Your task to perform on an android device: Open network settings Image 0: 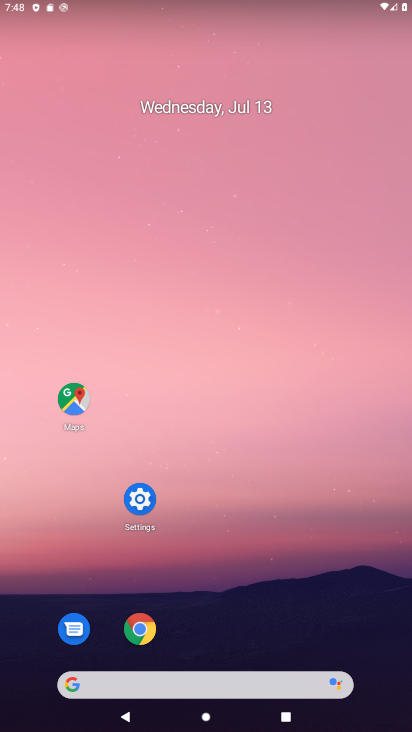
Step 0: drag from (395, 717) to (333, 101)
Your task to perform on an android device: Open network settings Image 1: 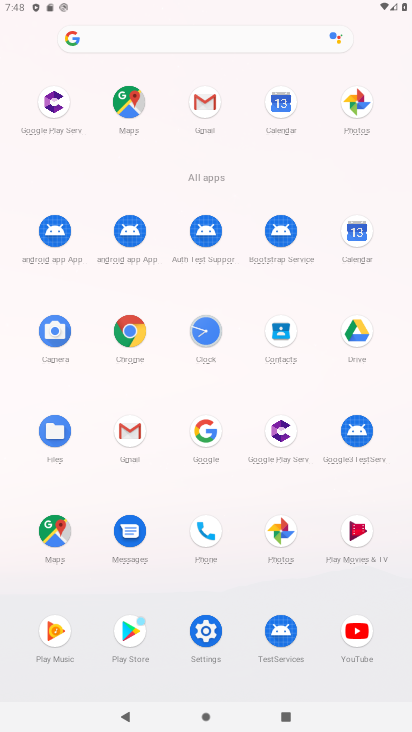
Step 1: click (211, 637)
Your task to perform on an android device: Open network settings Image 2: 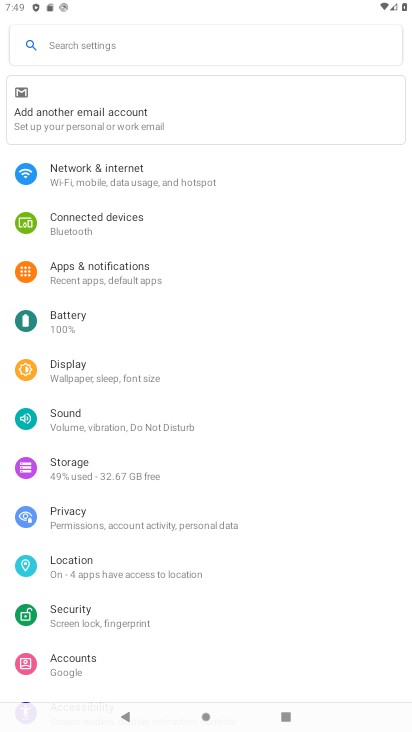
Step 2: click (105, 180)
Your task to perform on an android device: Open network settings Image 3: 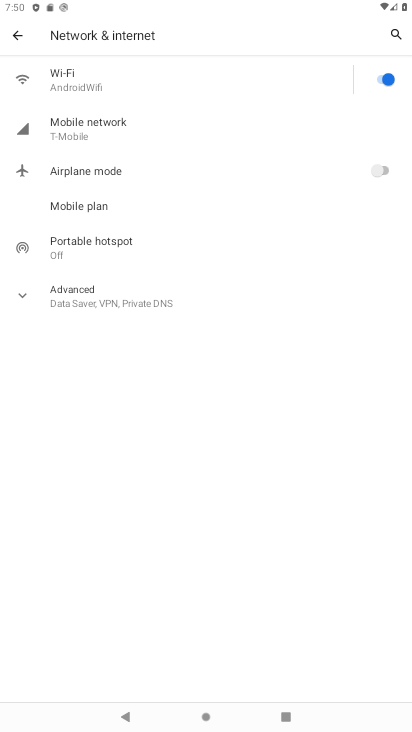
Step 3: click (87, 129)
Your task to perform on an android device: Open network settings Image 4: 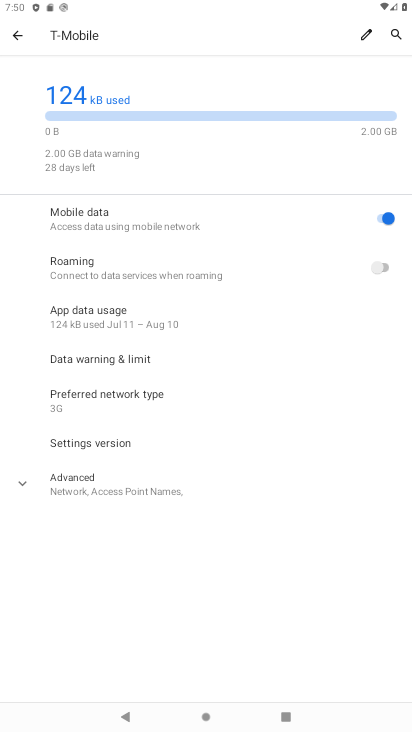
Step 4: click (22, 485)
Your task to perform on an android device: Open network settings Image 5: 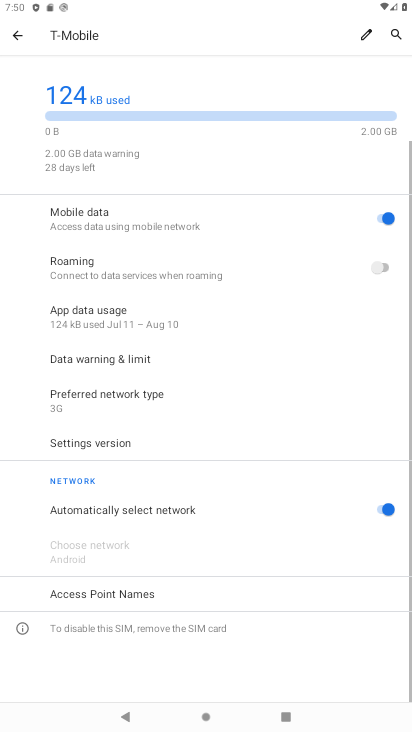
Step 5: task complete